Your task to perform on an android device: What's on my calendar tomorrow? Image 0: 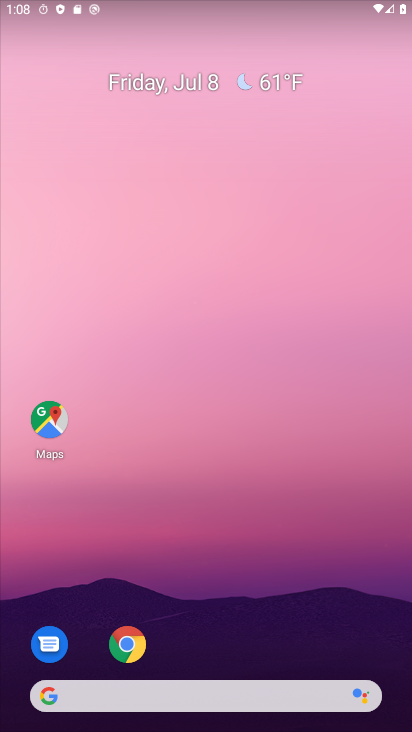
Step 0: drag from (207, 561) to (200, 159)
Your task to perform on an android device: What's on my calendar tomorrow? Image 1: 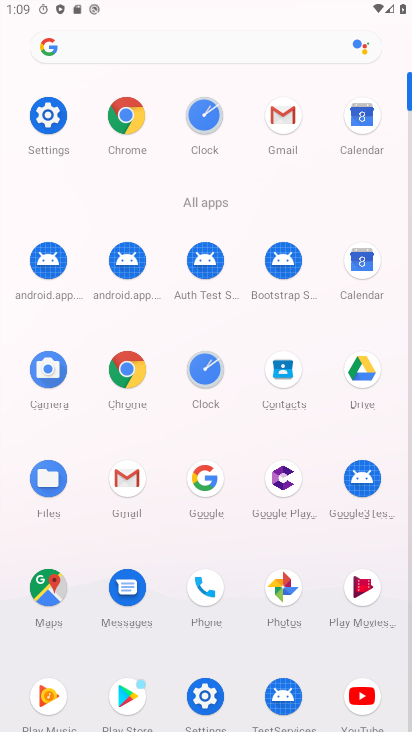
Step 1: click (376, 120)
Your task to perform on an android device: What's on my calendar tomorrow? Image 2: 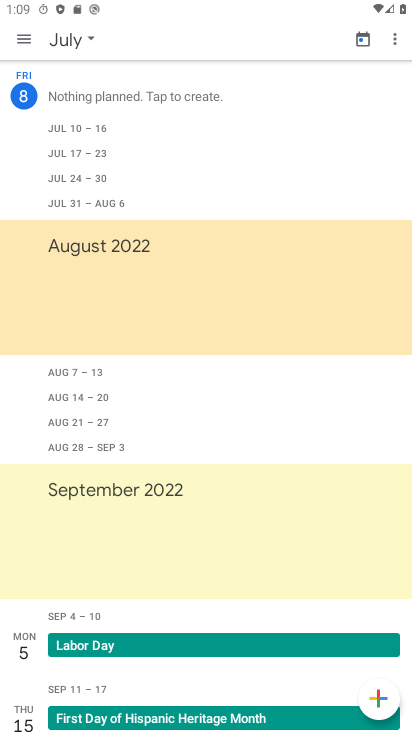
Step 2: click (18, 38)
Your task to perform on an android device: What's on my calendar tomorrow? Image 3: 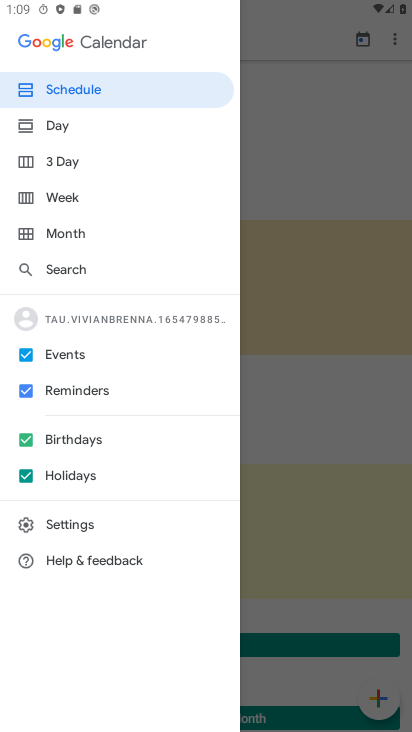
Step 3: click (43, 130)
Your task to perform on an android device: What's on my calendar tomorrow? Image 4: 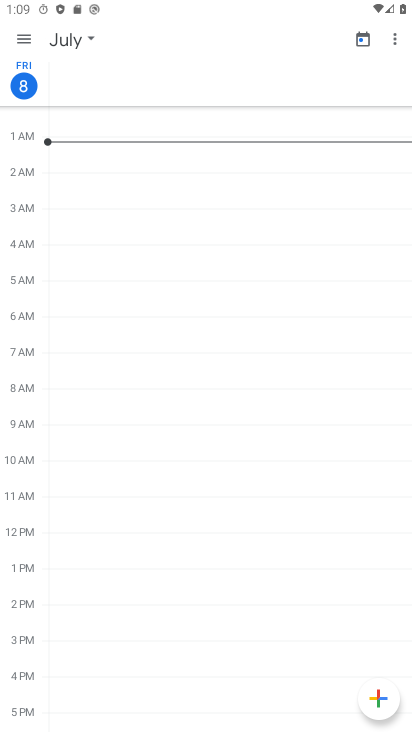
Step 4: click (66, 41)
Your task to perform on an android device: What's on my calendar tomorrow? Image 5: 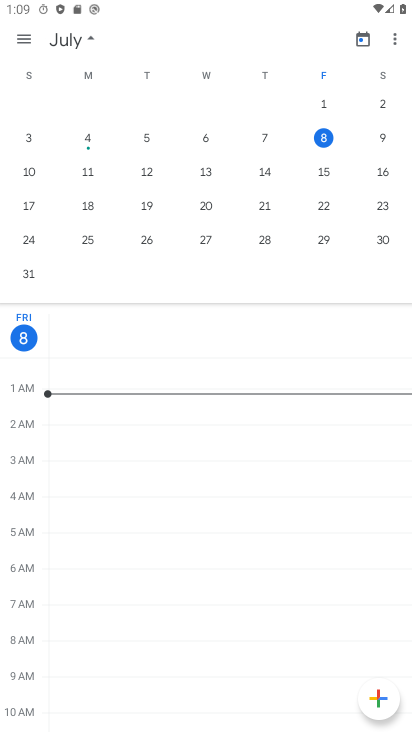
Step 5: click (384, 139)
Your task to perform on an android device: What's on my calendar tomorrow? Image 6: 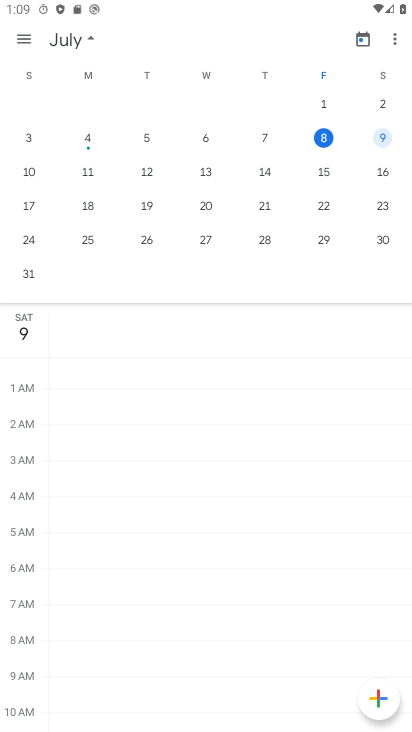
Step 6: task complete